Your task to perform on an android device: uninstall "Adobe Express: Graphic Design" Image 0: 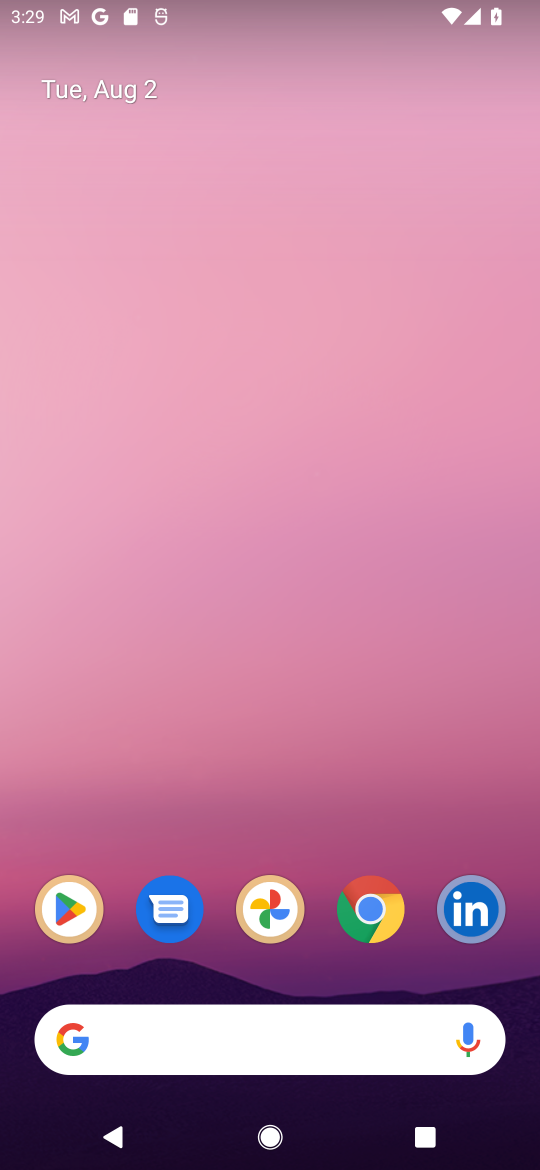
Step 0: drag from (295, 977) to (305, 336)
Your task to perform on an android device: uninstall "Adobe Express: Graphic Design" Image 1: 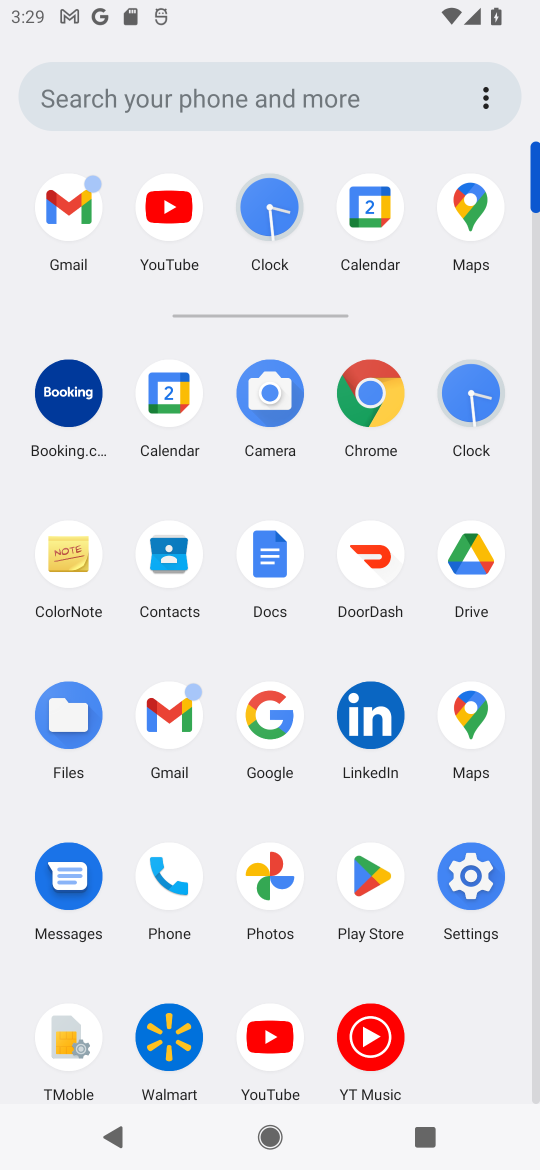
Step 1: click (381, 875)
Your task to perform on an android device: uninstall "Adobe Express: Graphic Design" Image 2: 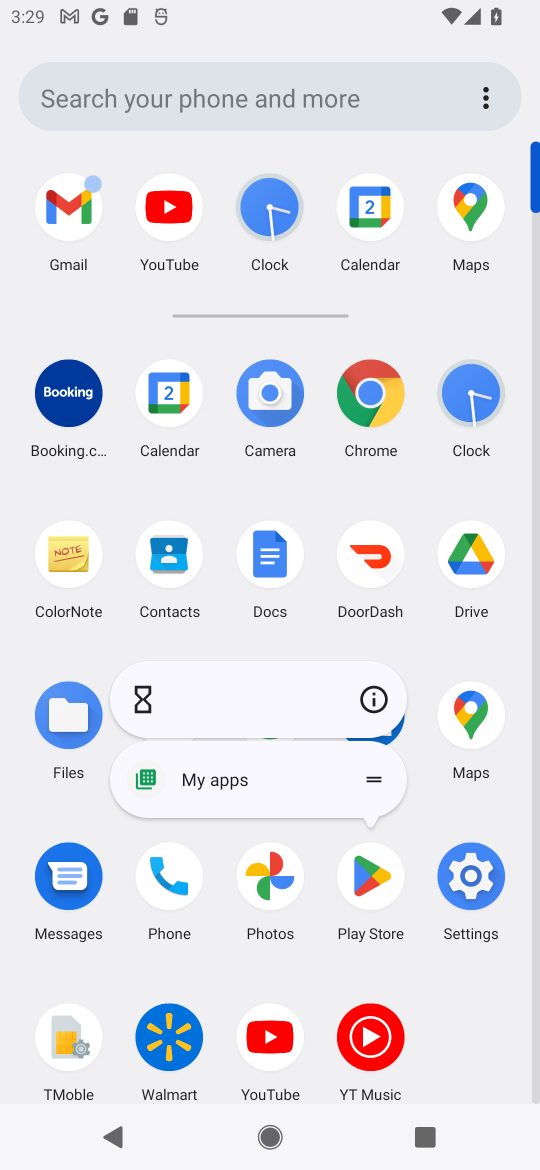
Step 2: click (373, 704)
Your task to perform on an android device: uninstall "Adobe Express: Graphic Design" Image 3: 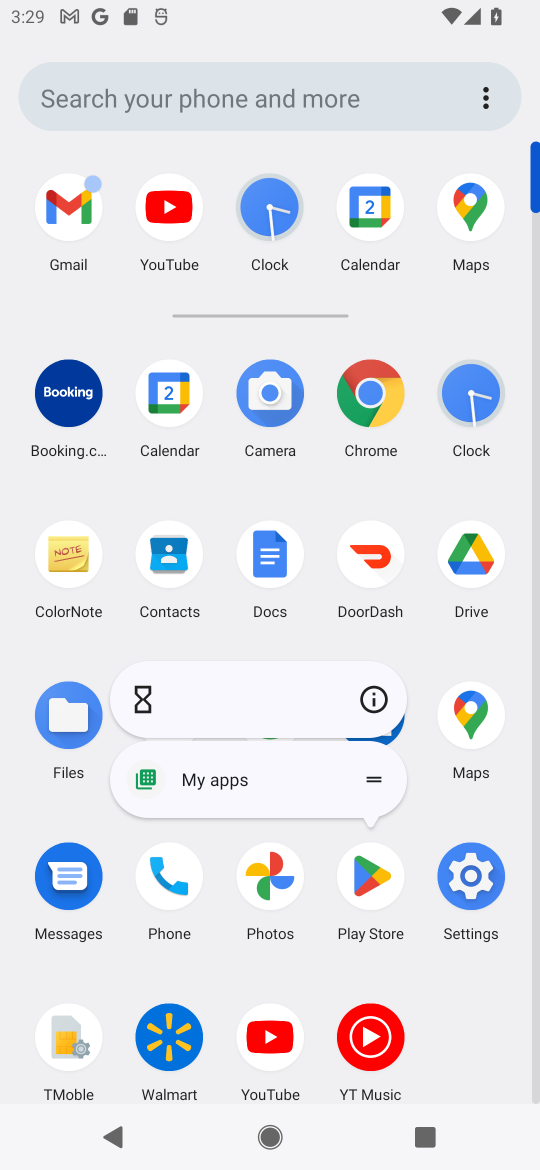
Step 3: click (368, 702)
Your task to perform on an android device: uninstall "Adobe Express: Graphic Design" Image 4: 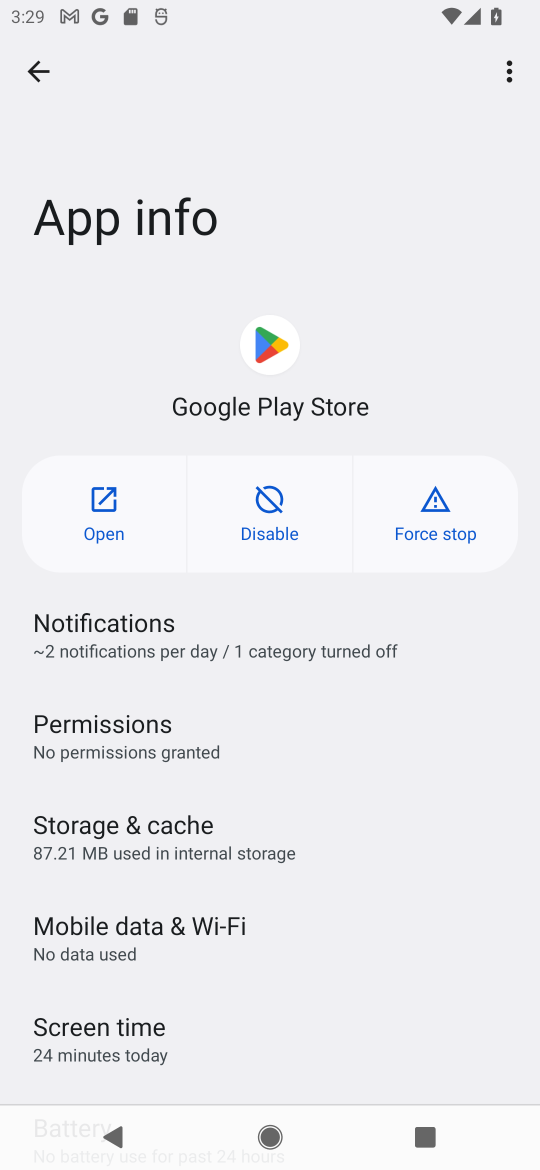
Step 4: click (109, 537)
Your task to perform on an android device: uninstall "Adobe Express: Graphic Design" Image 5: 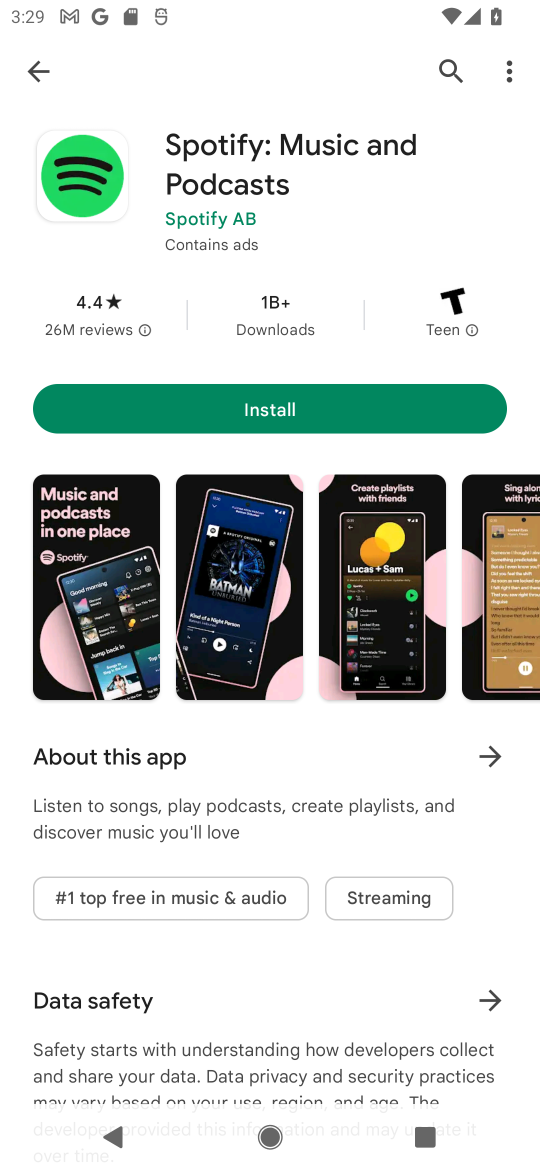
Step 5: drag from (284, 800) to (388, 147)
Your task to perform on an android device: uninstall "Adobe Express: Graphic Design" Image 6: 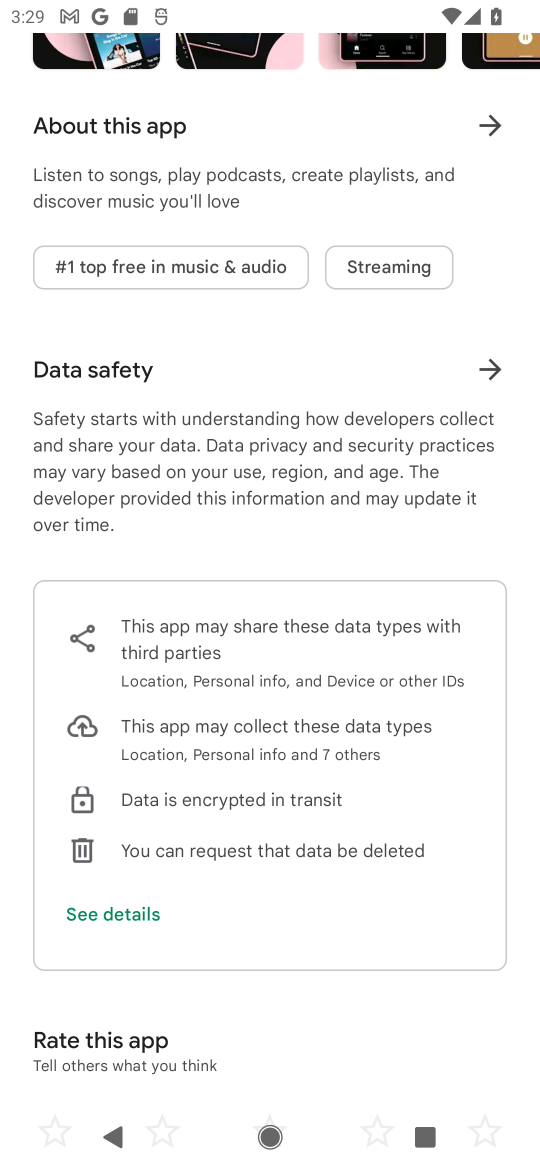
Step 6: drag from (263, 882) to (357, 293)
Your task to perform on an android device: uninstall "Adobe Express: Graphic Design" Image 7: 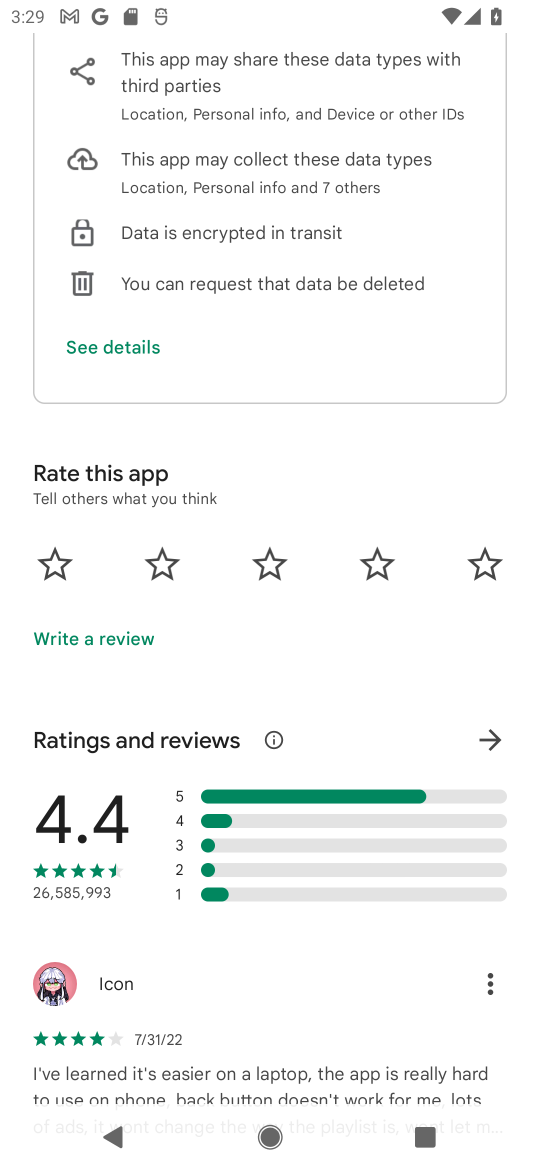
Step 7: drag from (257, 852) to (350, 231)
Your task to perform on an android device: uninstall "Adobe Express: Graphic Design" Image 8: 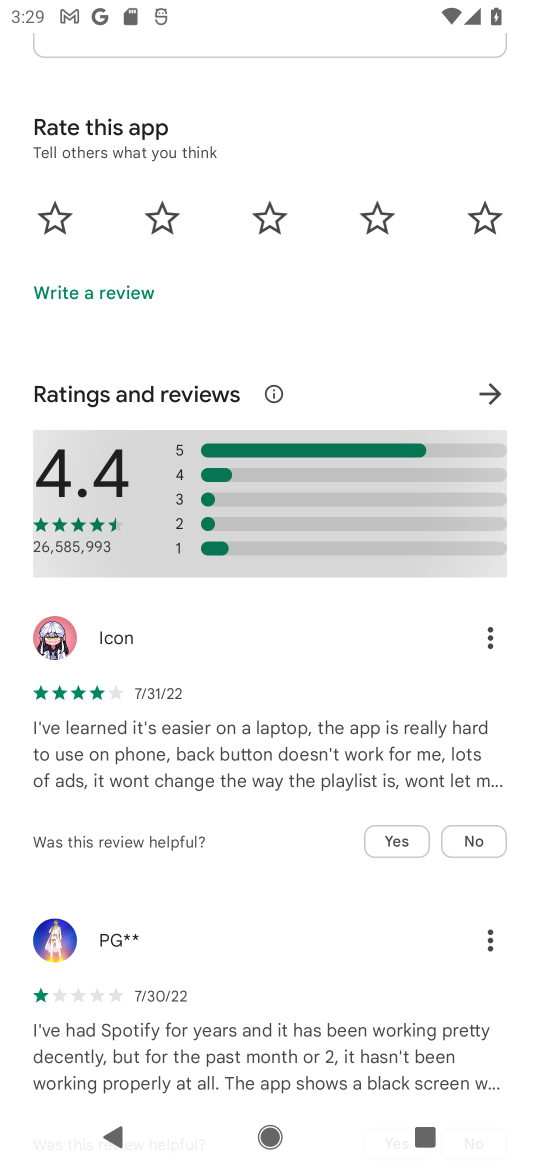
Step 8: drag from (357, 227) to (503, 743)
Your task to perform on an android device: uninstall "Adobe Express: Graphic Design" Image 9: 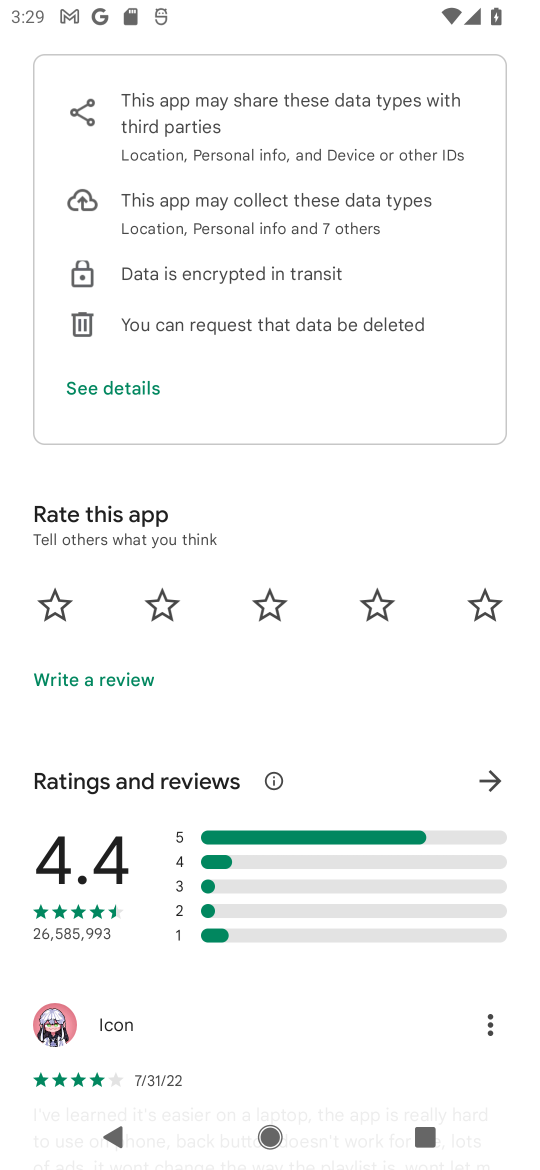
Step 9: drag from (291, 230) to (431, 716)
Your task to perform on an android device: uninstall "Adobe Express: Graphic Design" Image 10: 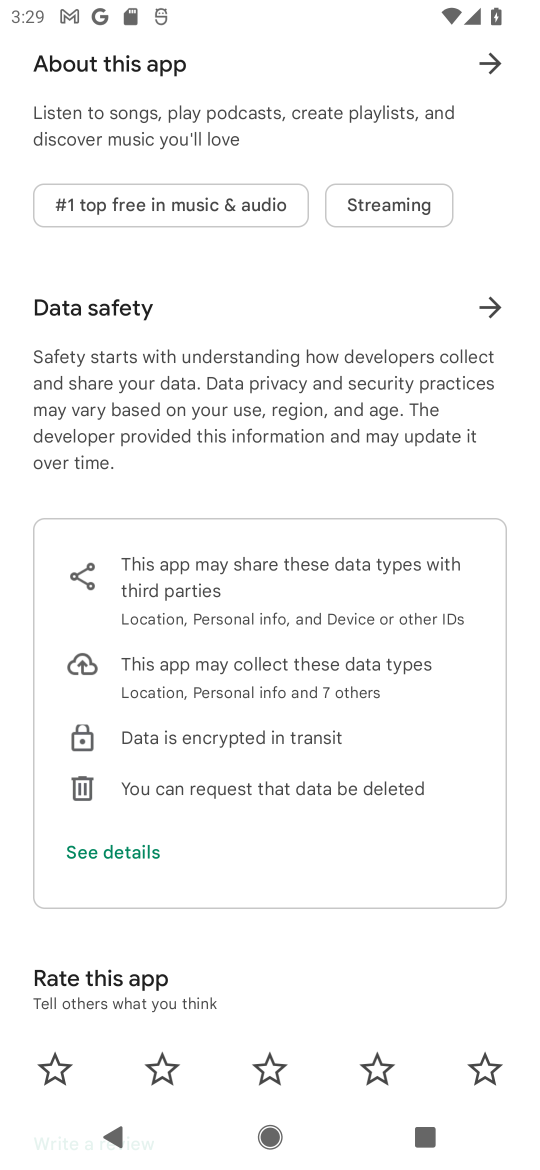
Step 10: drag from (326, 313) to (390, 1165)
Your task to perform on an android device: uninstall "Adobe Express: Graphic Design" Image 11: 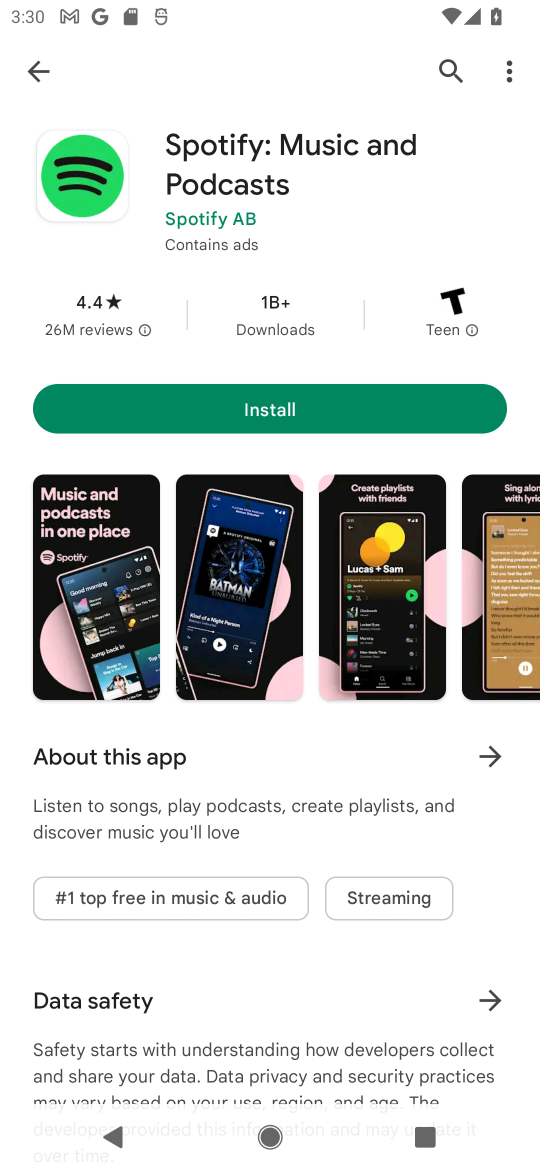
Step 11: click (457, 66)
Your task to perform on an android device: uninstall "Adobe Express: Graphic Design" Image 12: 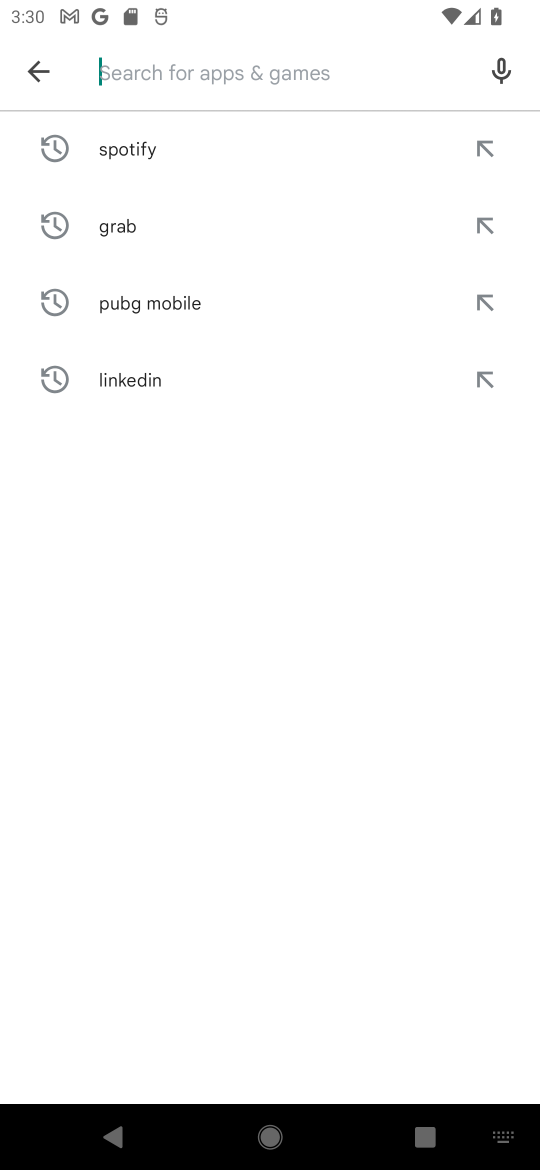
Step 12: type "Adobe Express: Graphic Design"
Your task to perform on an android device: uninstall "Adobe Express: Graphic Design" Image 13: 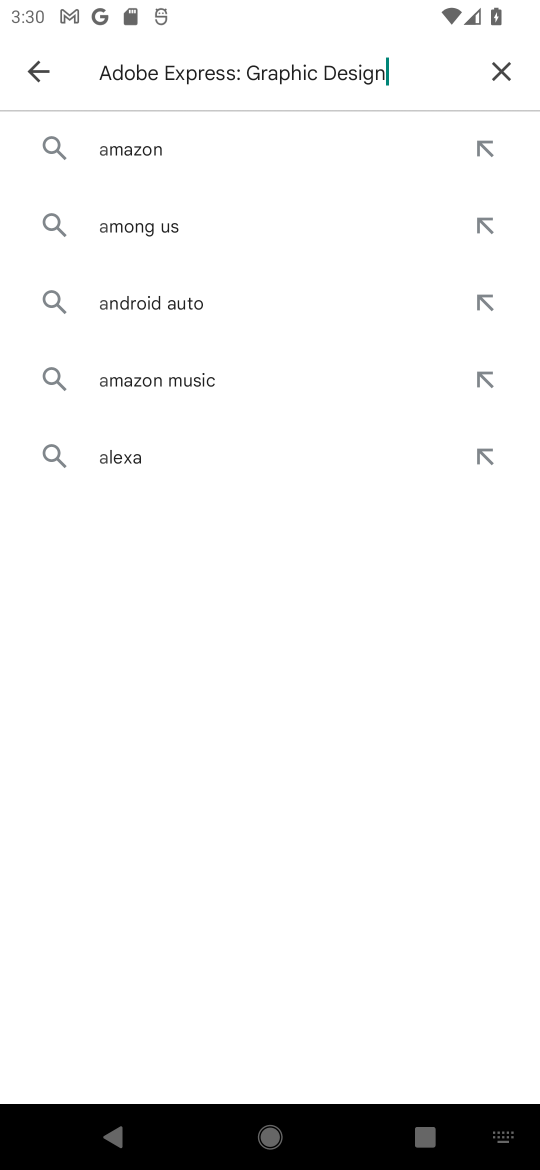
Step 13: type ""
Your task to perform on an android device: uninstall "Adobe Express: Graphic Design" Image 14: 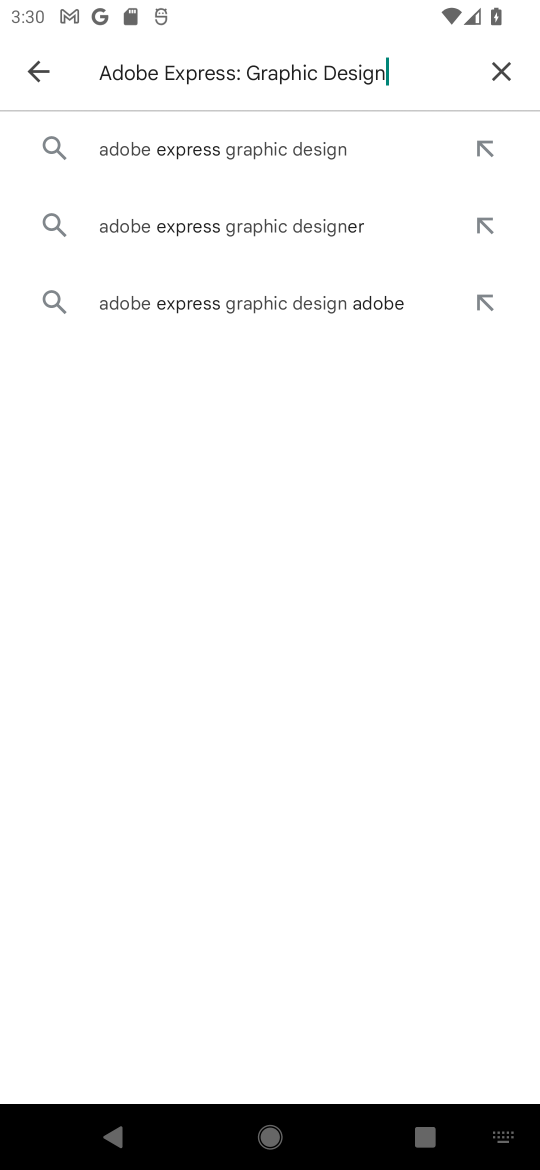
Step 14: click (338, 157)
Your task to perform on an android device: uninstall "Adobe Express: Graphic Design" Image 15: 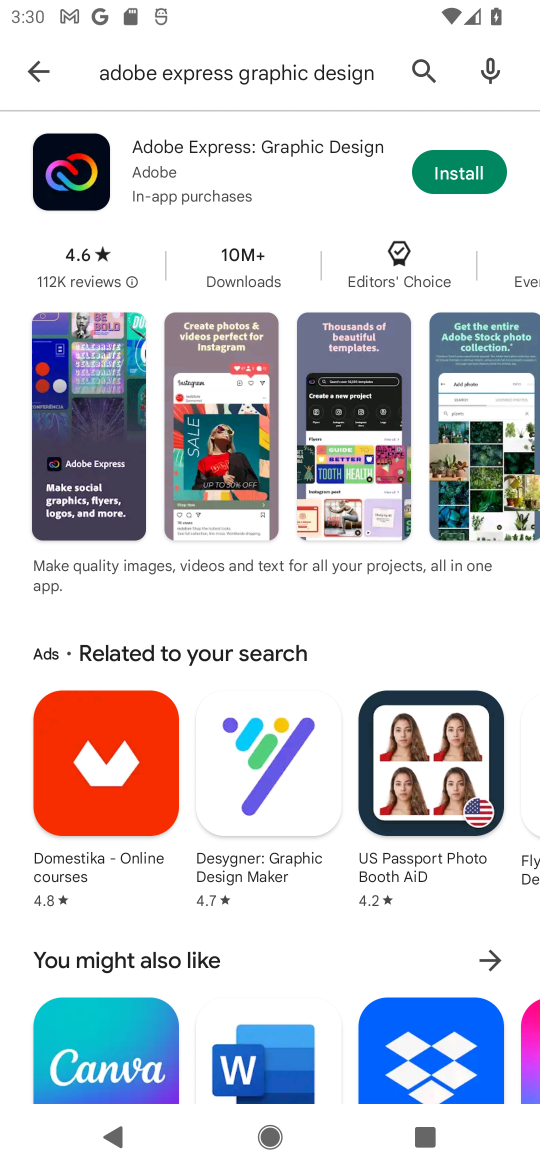
Step 15: click (221, 166)
Your task to perform on an android device: uninstall "Adobe Express: Graphic Design" Image 16: 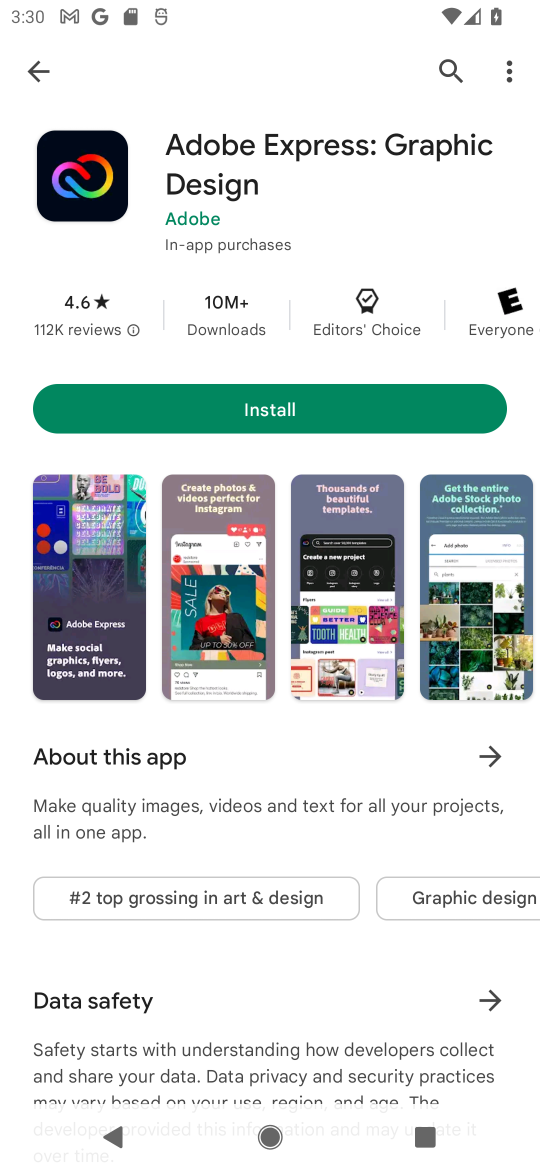
Step 16: task complete